Your task to perform on an android device: Open Amazon Image 0: 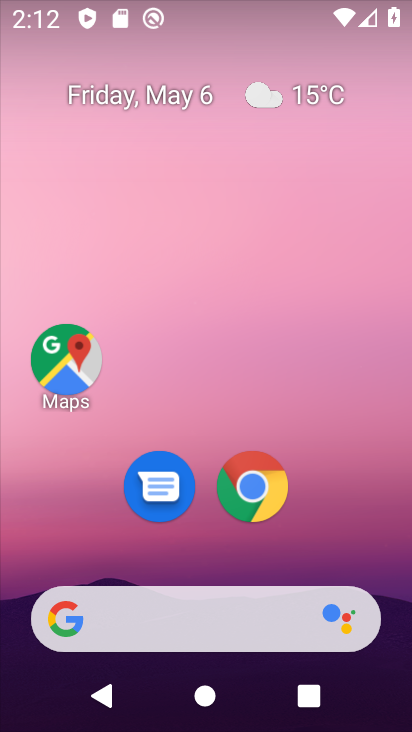
Step 0: click (252, 488)
Your task to perform on an android device: Open Amazon Image 1: 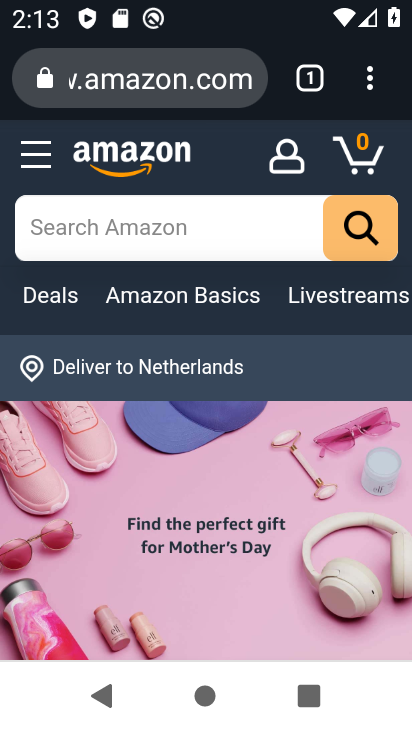
Step 1: task complete